Your task to perform on an android device: set the timer Image 0: 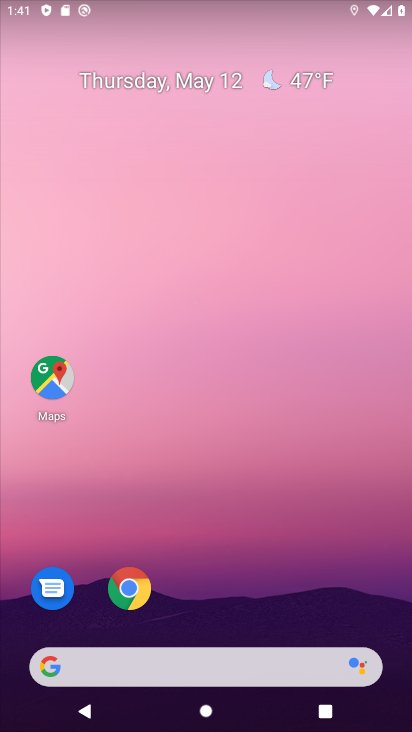
Step 0: drag from (389, 636) to (264, 110)
Your task to perform on an android device: set the timer Image 1: 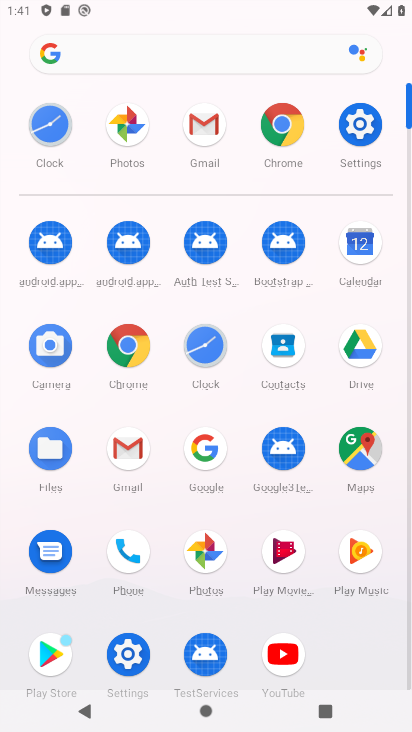
Step 1: click (212, 365)
Your task to perform on an android device: set the timer Image 2: 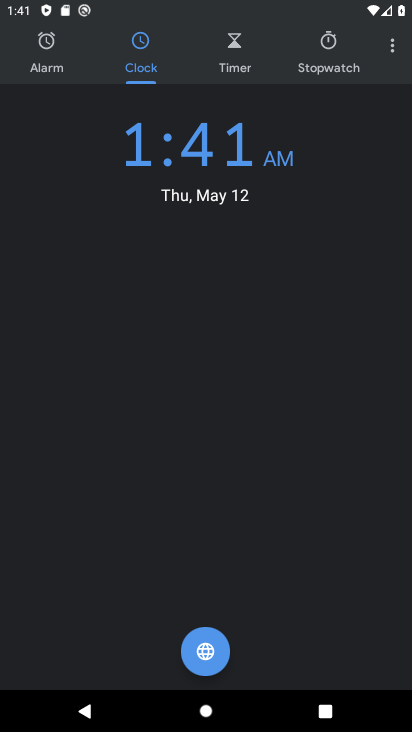
Step 2: click (392, 41)
Your task to perform on an android device: set the timer Image 3: 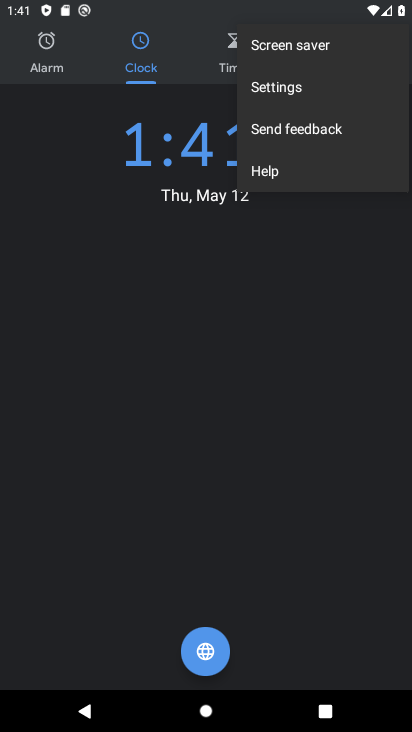
Step 3: click (314, 88)
Your task to perform on an android device: set the timer Image 4: 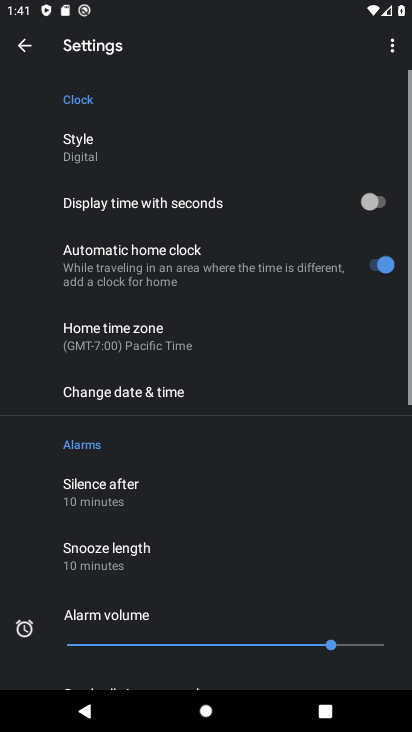
Step 4: click (191, 338)
Your task to perform on an android device: set the timer Image 5: 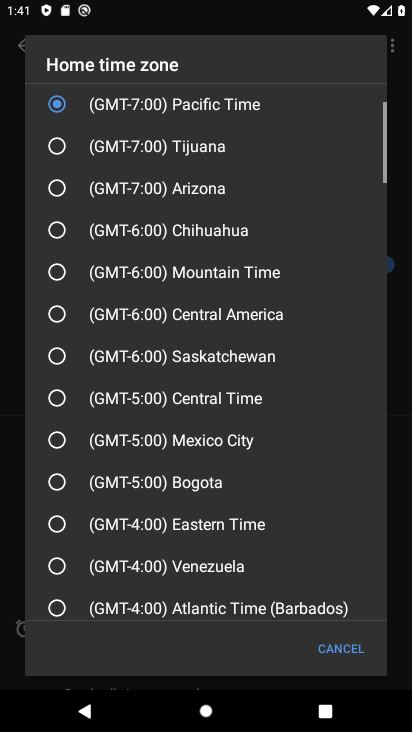
Step 5: click (194, 360)
Your task to perform on an android device: set the timer Image 6: 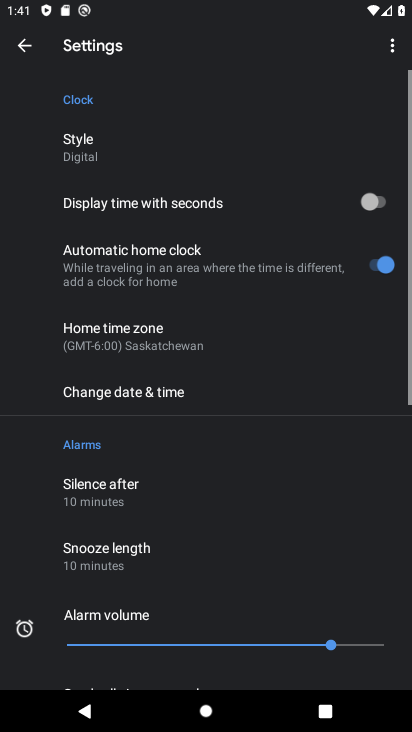
Step 6: task complete